Your task to perform on an android device: clear all cookies in the chrome app Image 0: 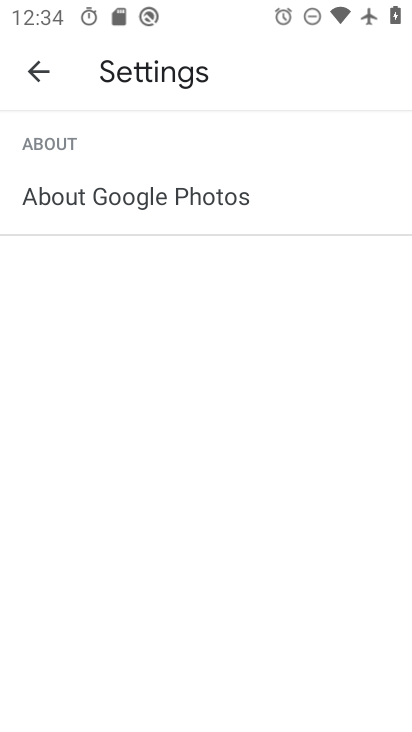
Step 0: press home button
Your task to perform on an android device: clear all cookies in the chrome app Image 1: 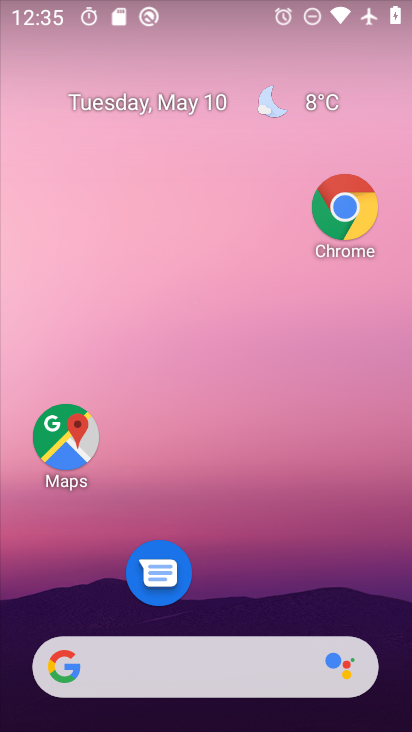
Step 1: click (348, 192)
Your task to perform on an android device: clear all cookies in the chrome app Image 2: 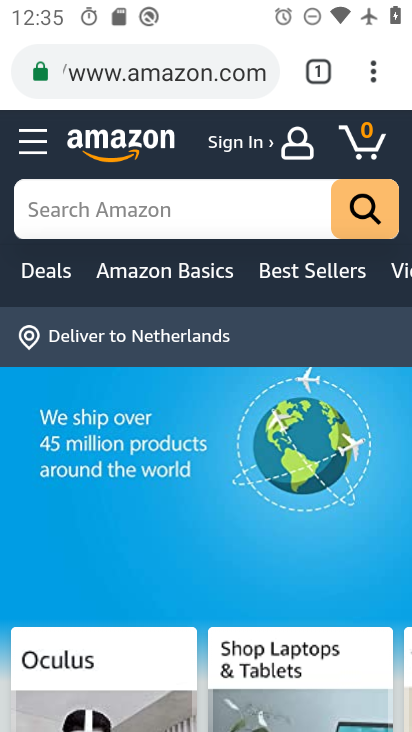
Step 2: drag from (373, 74) to (162, 170)
Your task to perform on an android device: clear all cookies in the chrome app Image 3: 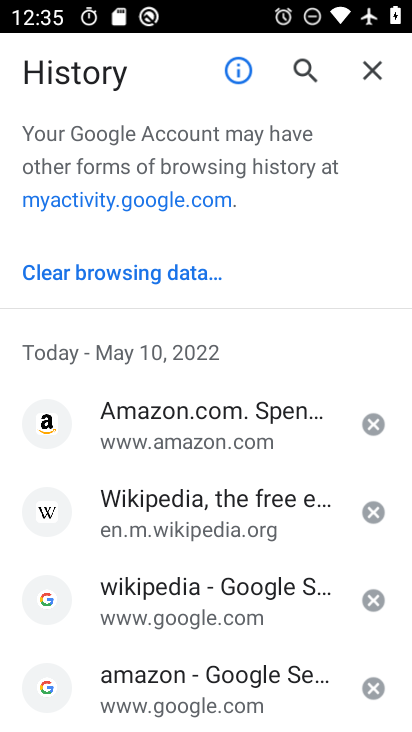
Step 3: click (149, 280)
Your task to perform on an android device: clear all cookies in the chrome app Image 4: 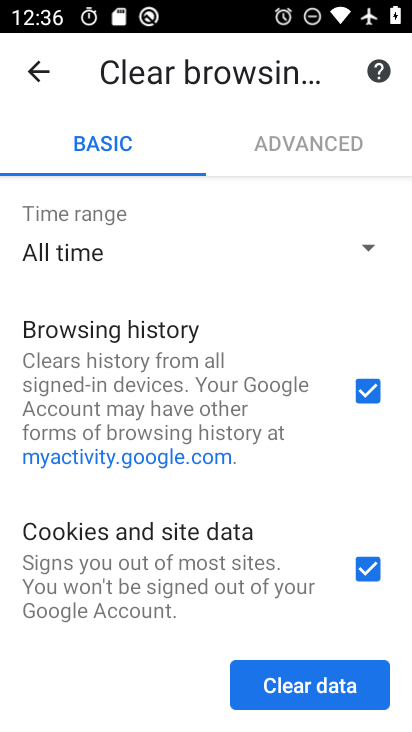
Step 4: click (333, 707)
Your task to perform on an android device: clear all cookies in the chrome app Image 5: 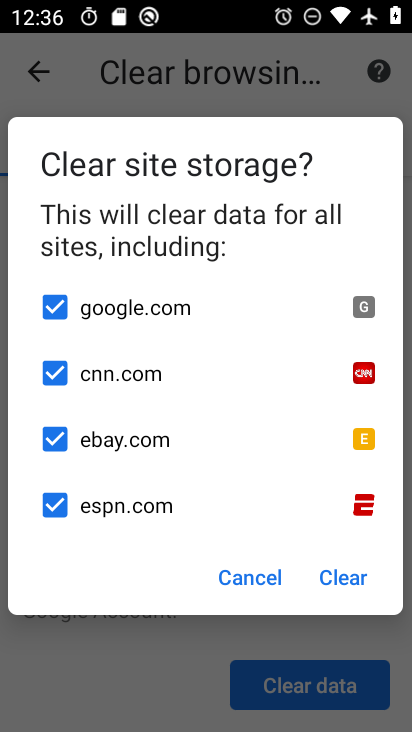
Step 5: click (334, 584)
Your task to perform on an android device: clear all cookies in the chrome app Image 6: 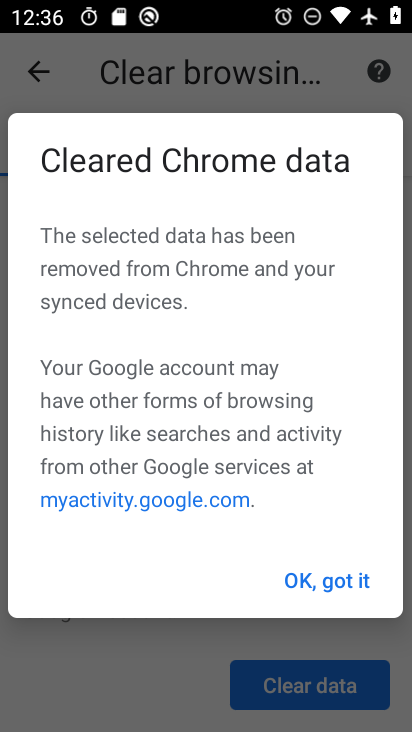
Step 6: click (353, 578)
Your task to perform on an android device: clear all cookies in the chrome app Image 7: 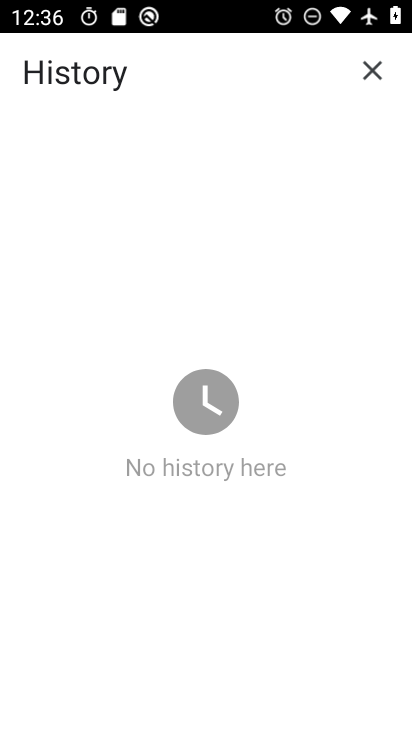
Step 7: task complete